Your task to perform on an android device: Open Youtube and go to "Your channel" Image 0: 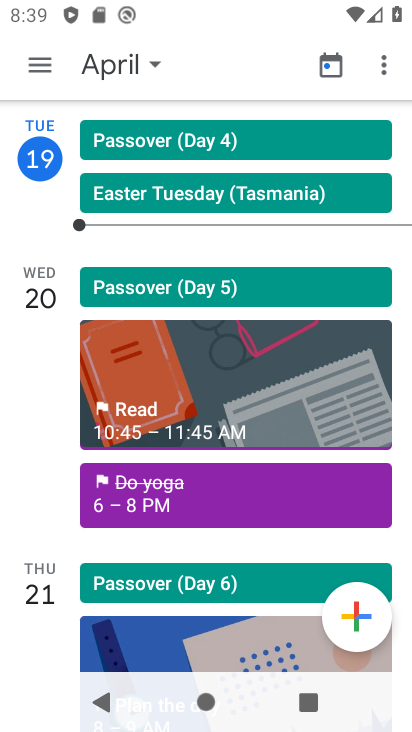
Step 0: press home button
Your task to perform on an android device: Open Youtube and go to "Your channel" Image 1: 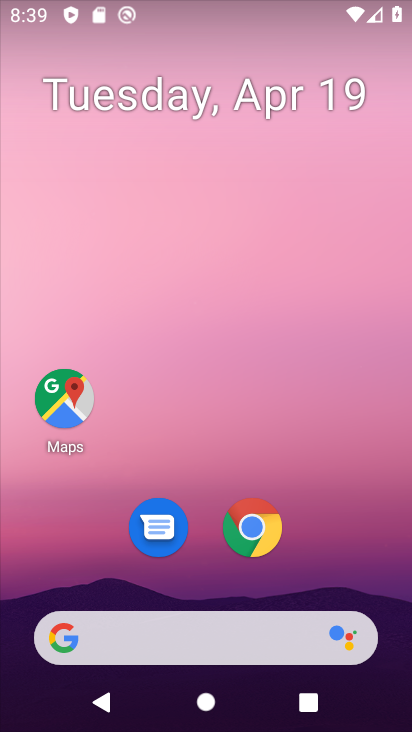
Step 1: drag from (201, 540) to (243, 102)
Your task to perform on an android device: Open Youtube and go to "Your channel" Image 2: 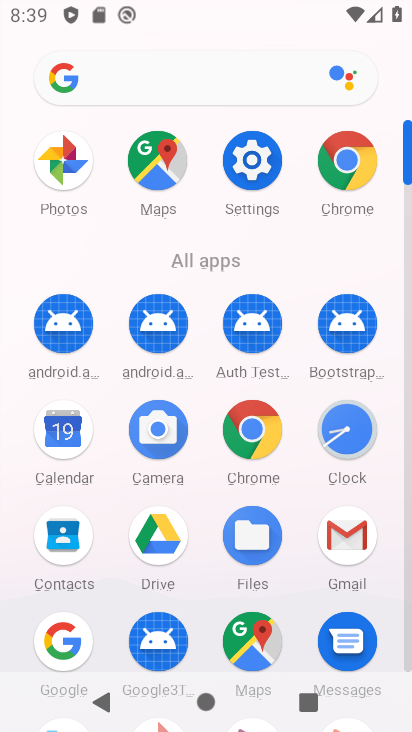
Step 2: drag from (297, 585) to (321, 147)
Your task to perform on an android device: Open Youtube and go to "Your channel" Image 3: 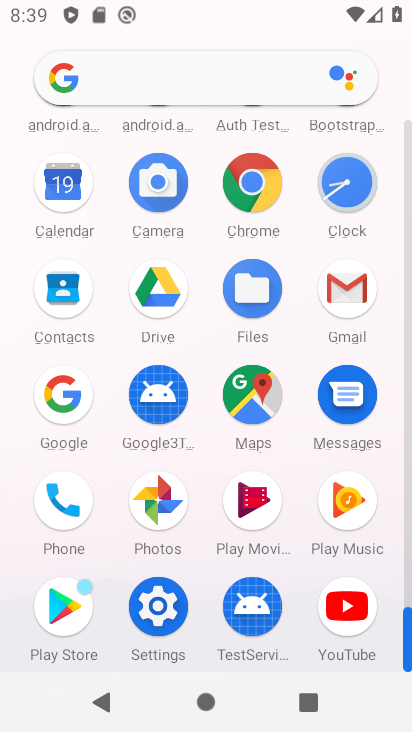
Step 3: click (337, 607)
Your task to perform on an android device: Open Youtube and go to "Your channel" Image 4: 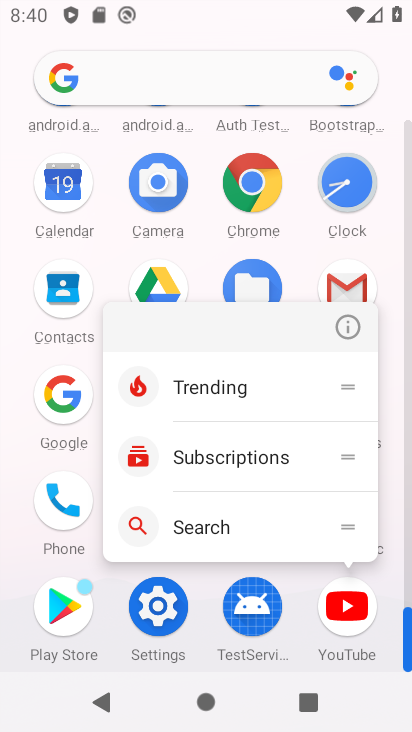
Step 4: click (349, 607)
Your task to perform on an android device: Open Youtube and go to "Your channel" Image 5: 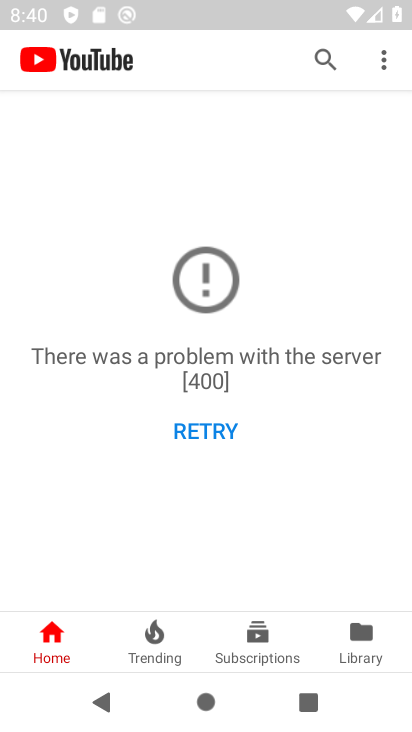
Step 5: task complete